Your task to perform on an android device: turn off sleep mode Image 0: 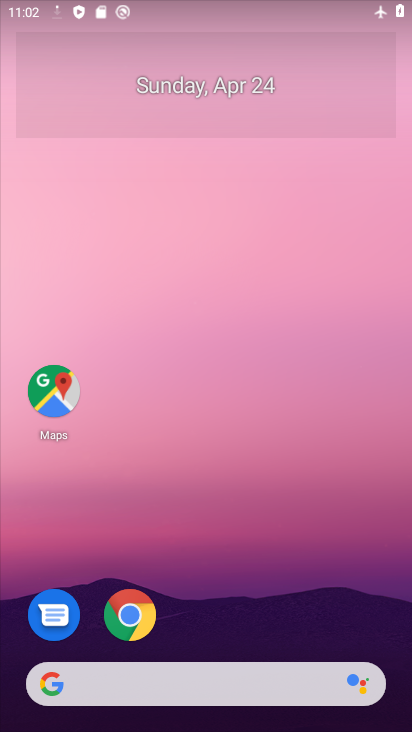
Step 0: drag from (187, 616) to (188, 30)
Your task to perform on an android device: turn off sleep mode Image 1: 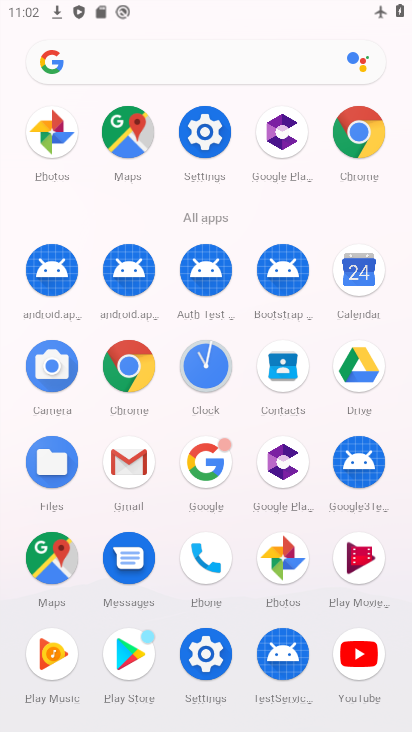
Step 1: click (203, 177)
Your task to perform on an android device: turn off sleep mode Image 2: 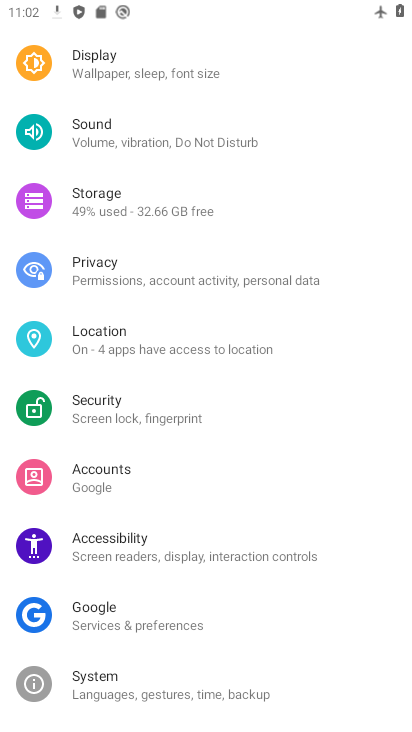
Step 2: drag from (195, 179) to (231, 586)
Your task to perform on an android device: turn off sleep mode Image 3: 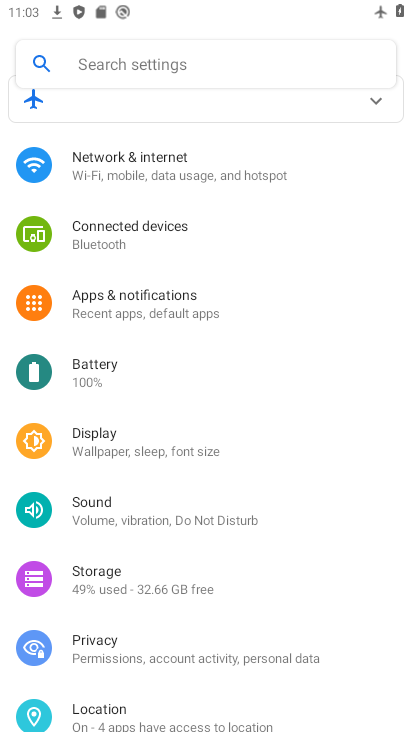
Step 3: drag from (219, 163) to (251, 260)
Your task to perform on an android device: turn off sleep mode Image 4: 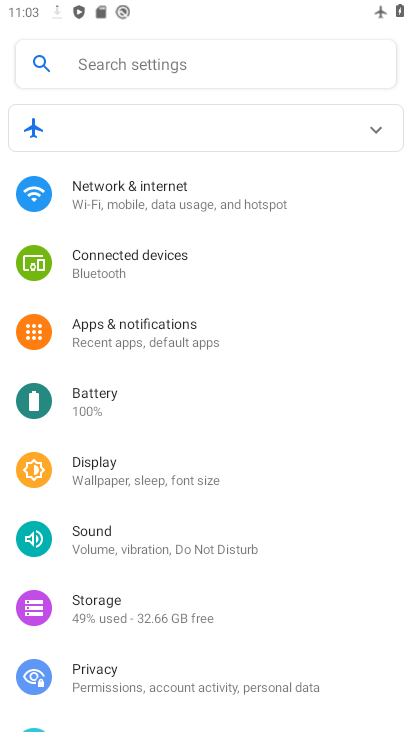
Step 4: click (225, 476)
Your task to perform on an android device: turn off sleep mode Image 5: 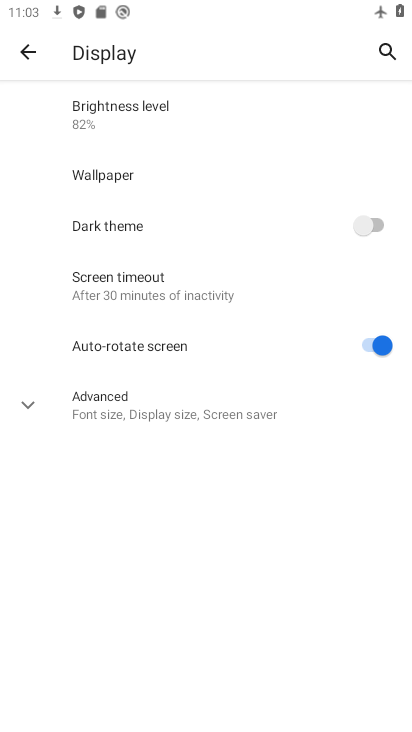
Step 5: click (252, 301)
Your task to perform on an android device: turn off sleep mode Image 6: 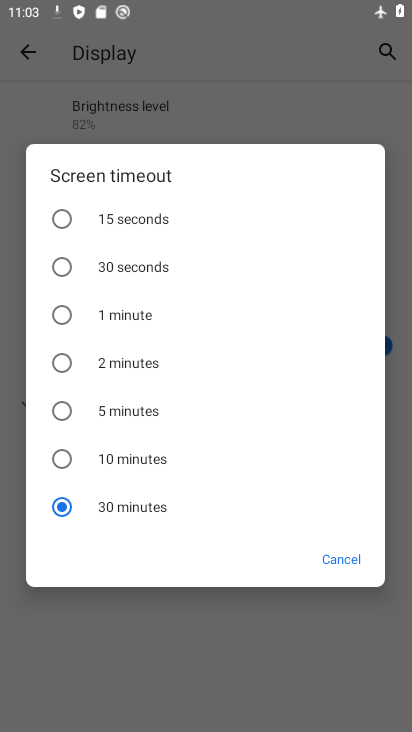
Step 6: click (205, 217)
Your task to perform on an android device: turn off sleep mode Image 7: 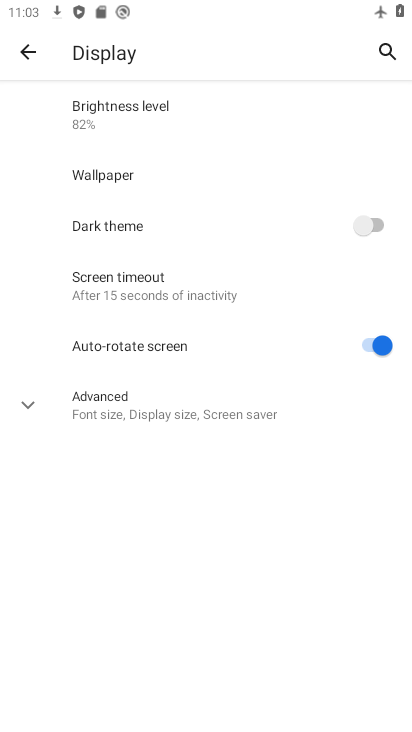
Step 7: task complete